Your task to perform on an android device: turn pop-ups on in chrome Image 0: 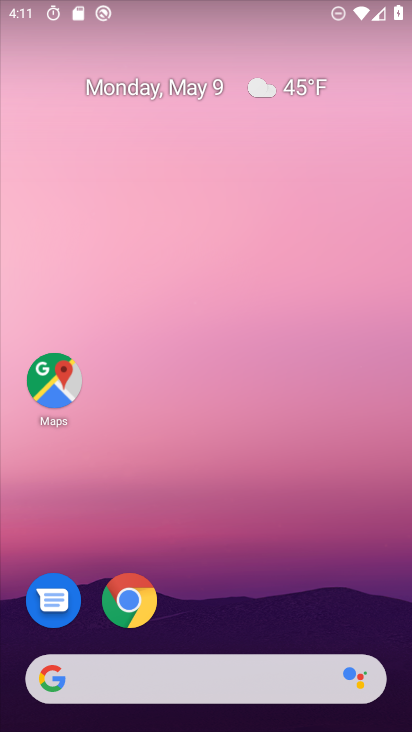
Step 0: drag from (239, 566) to (211, 11)
Your task to perform on an android device: turn pop-ups on in chrome Image 1: 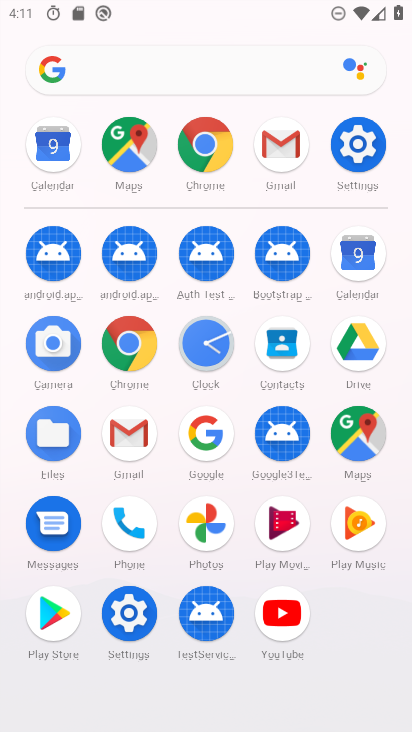
Step 1: drag from (7, 491) to (12, 253)
Your task to perform on an android device: turn pop-ups on in chrome Image 2: 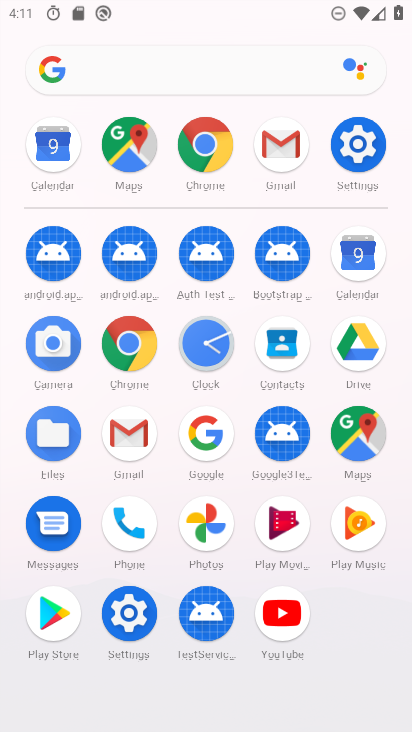
Step 2: click (126, 339)
Your task to perform on an android device: turn pop-ups on in chrome Image 3: 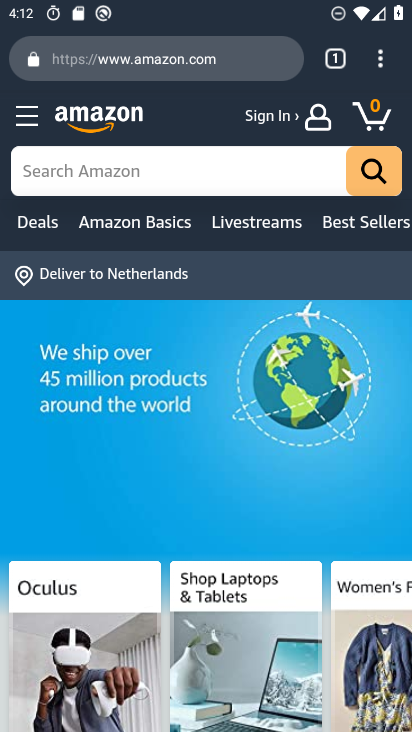
Step 3: drag from (376, 60) to (175, 630)
Your task to perform on an android device: turn pop-ups on in chrome Image 4: 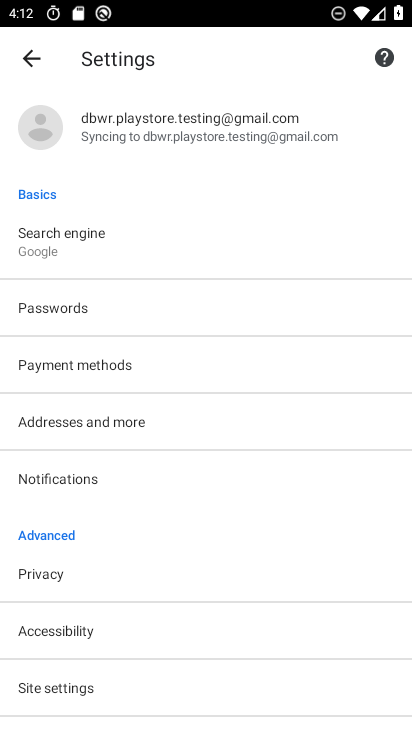
Step 4: drag from (196, 540) to (203, 184)
Your task to perform on an android device: turn pop-ups on in chrome Image 5: 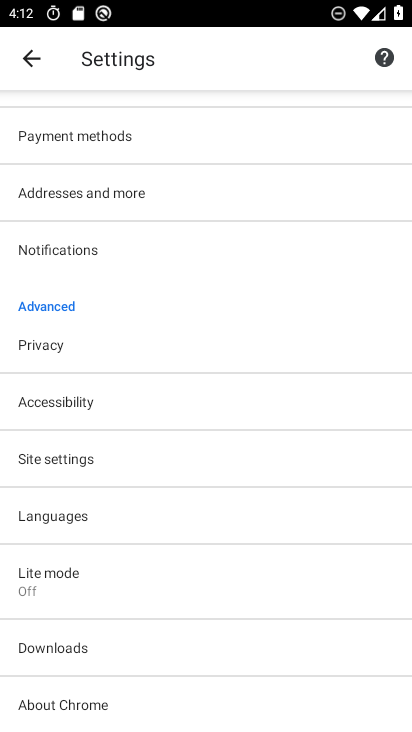
Step 5: click (98, 459)
Your task to perform on an android device: turn pop-ups on in chrome Image 6: 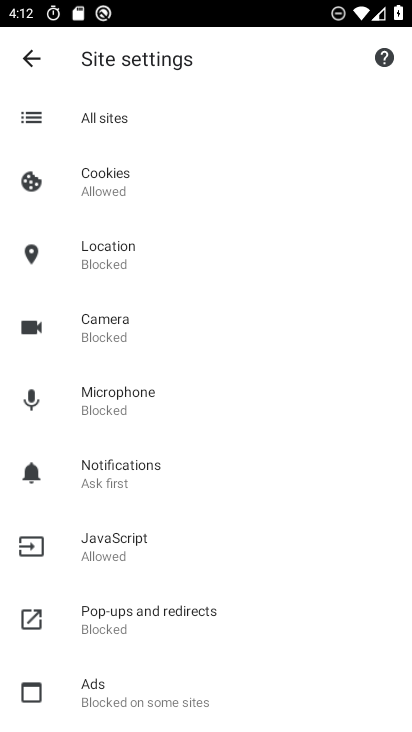
Step 6: click (139, 622)
Your task to perform on an android device: turn pop-ups on in chrome Image 7: 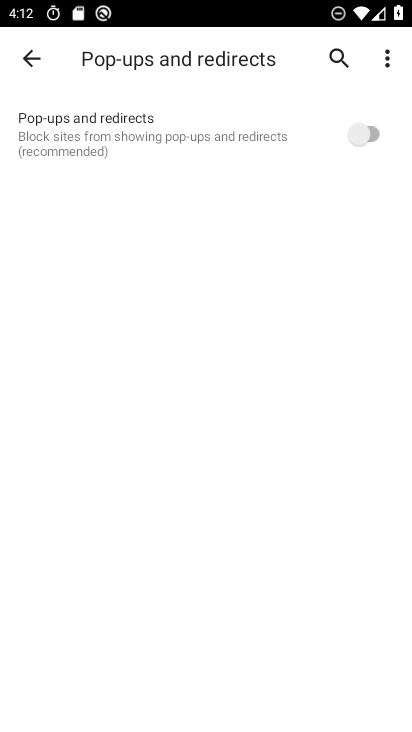
Step 7: click (357, 121)
Your task to perform on an android device: turn pop-ups on in chrome Image 8: 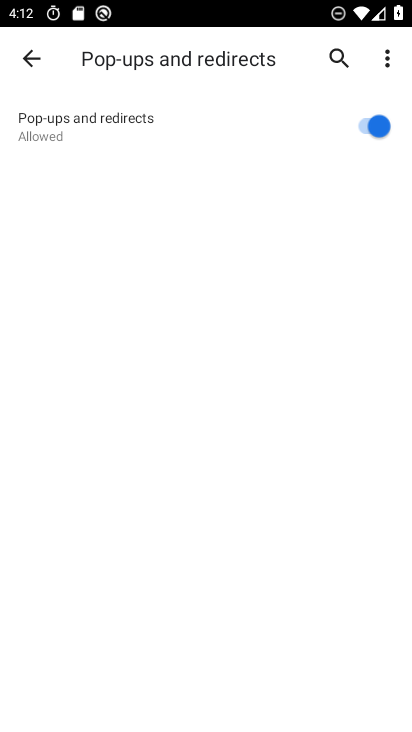
Step 8: task complete